Your task to perform on an android device: turn off translation in the chrome app Image 0: 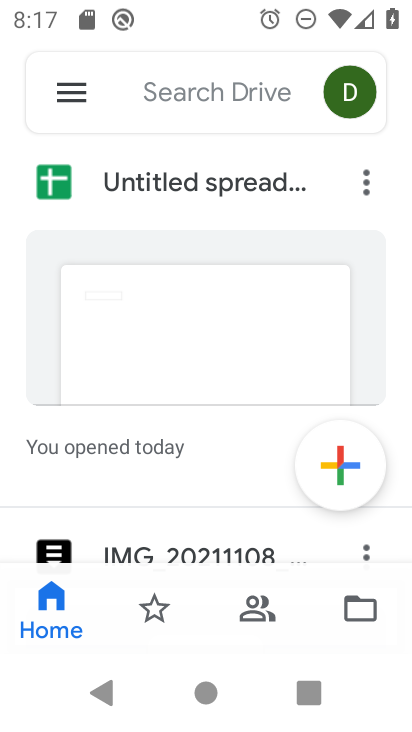
Step 0: press home button
Your task to perform on an android device: turn off translation in the chrome app Image 1: 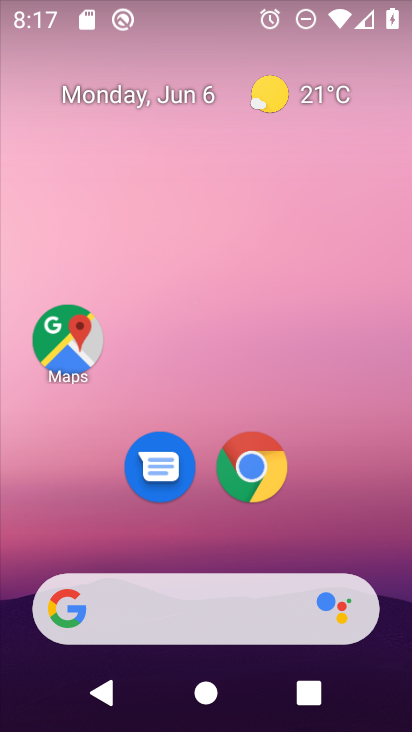
Step 1: drag from (375, 502) to (384, 147)
Your task to perform on an android device: turn off translation in the chrome app Image 2: 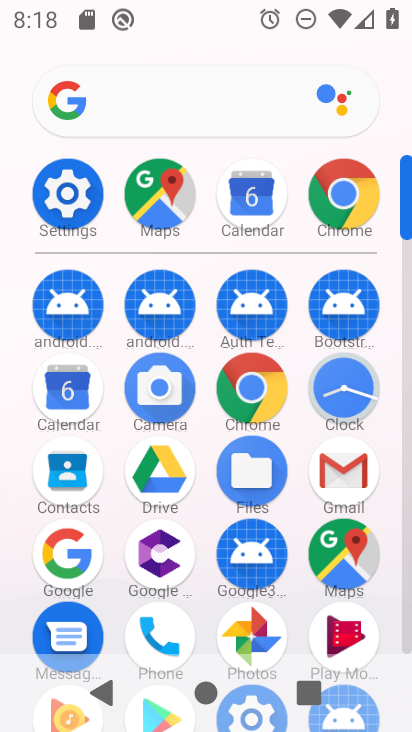
Step 2: click (268, 392)
Your task to perform on an android device: turn off translation in the chrome app Image 3: 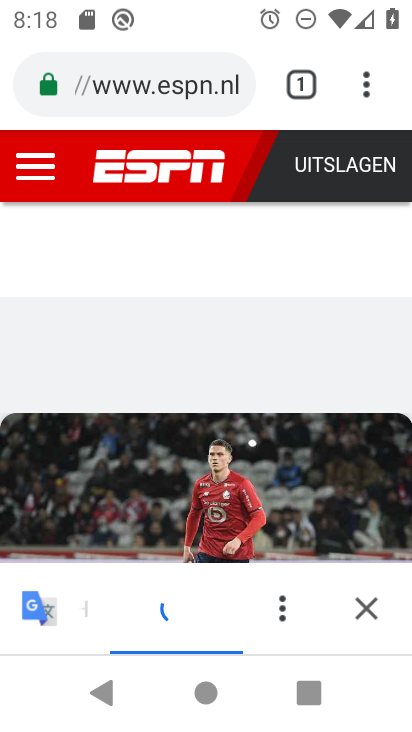
Step 3: click (366, 94)
Your task to perform on an android device: turn off translation in the chrome app Image 4: 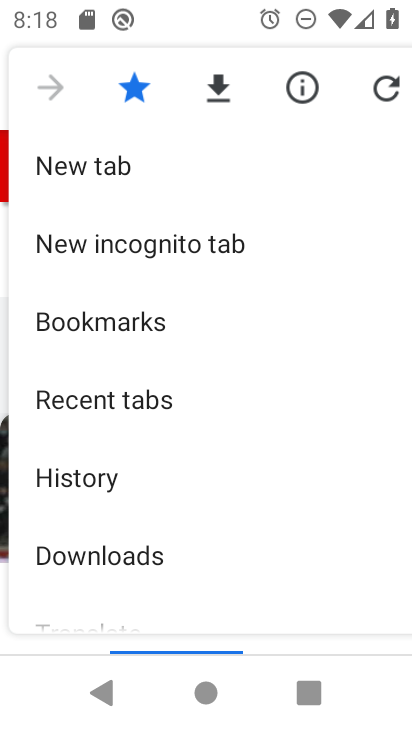
Step 4: drag from (309, 406) to (314, 317)
Your task to perform on an android device: turn off translation in the chrome app Image 5: 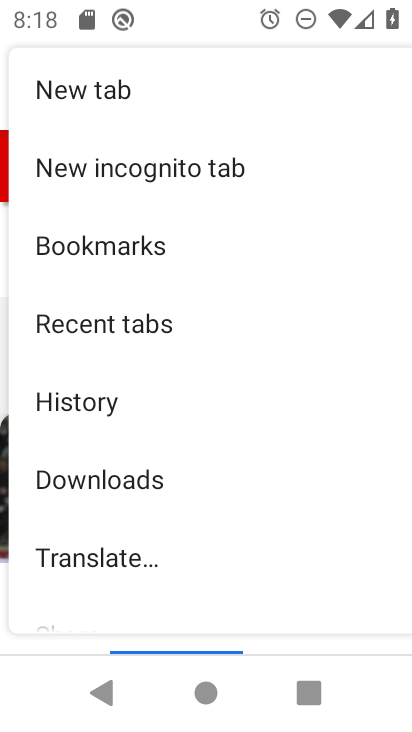
Step 5: drag from (350, 438) to (352, 335)
Your task to perform on an android device: turn off translation in the chrome app Image 6: 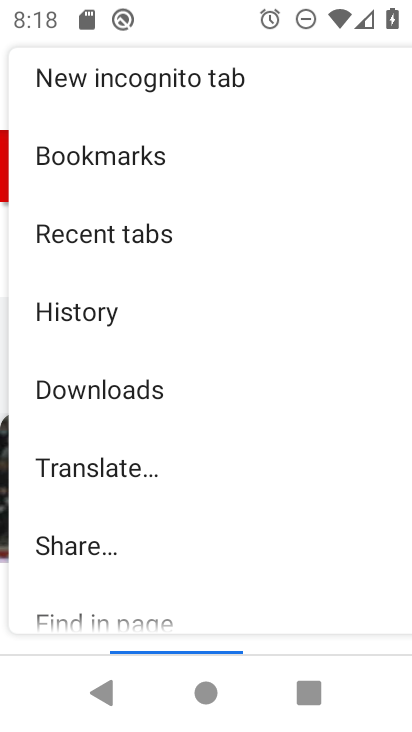
Step 6: drag from (322, 451) to (326, 265)
Your task to perform on an android device: turn off translation in the chrome app Image 7: 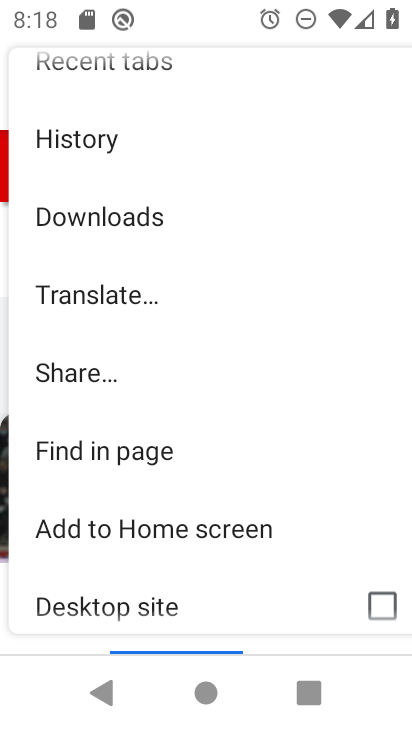
Step 7: drag from (350, 481) to (355, 327)
Your task to perform on an android device: turn off translation in the chrome app Image 8: 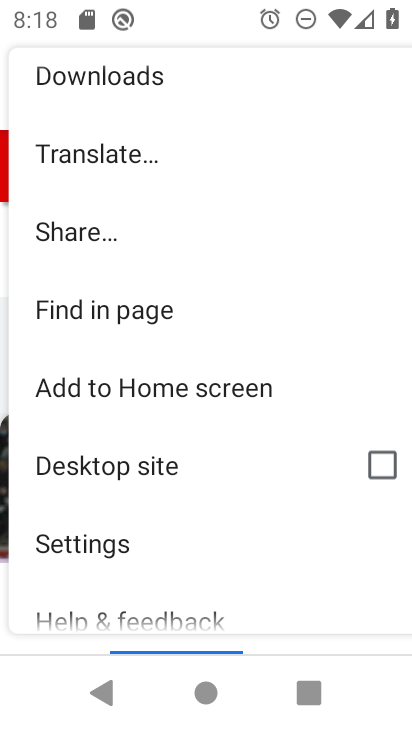
Step 8: click (132, 546)
Your task to perform on an android device: turn off translation in the chrome app Image 9: 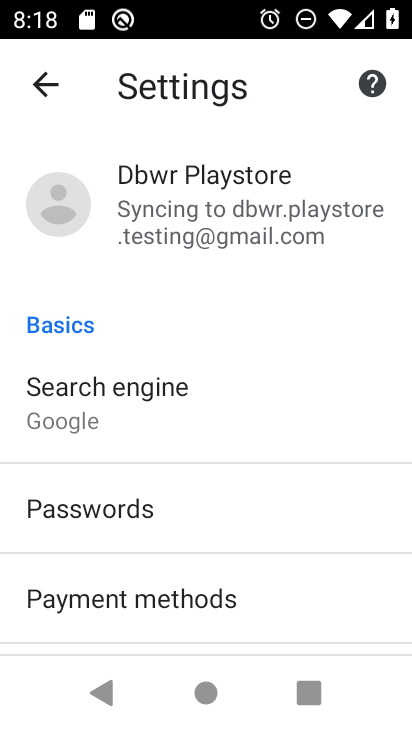
Step 9: drag from (331, 507) to (342, 421)
Your task to perform on an android device: turn off translation in the chrome app Image 10: 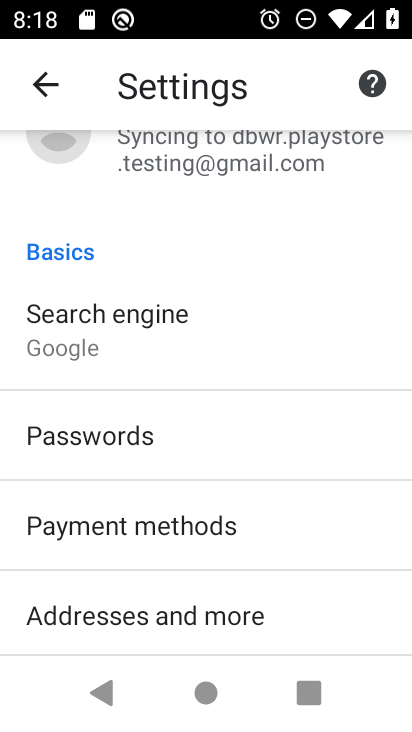
Step 10: drag from (352, 523) to (371, 419)
Your task to perform on an android device: turn off translation in the chrome app Image 11: 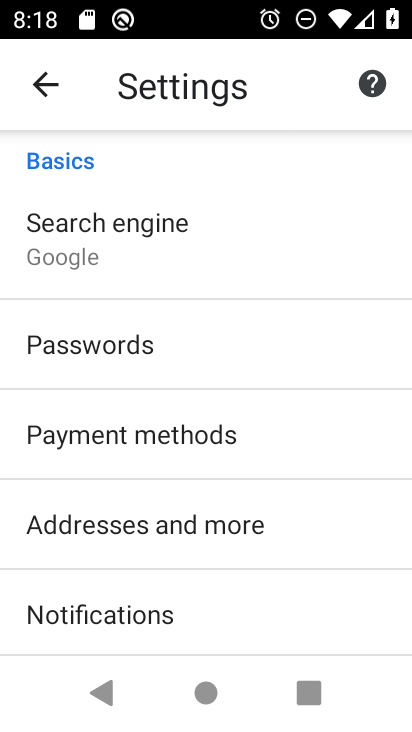
Step 11: drag from (356, 581) to (357, 406)
Your task to perform on an android device: turn off translation in the chrome app Image 12: 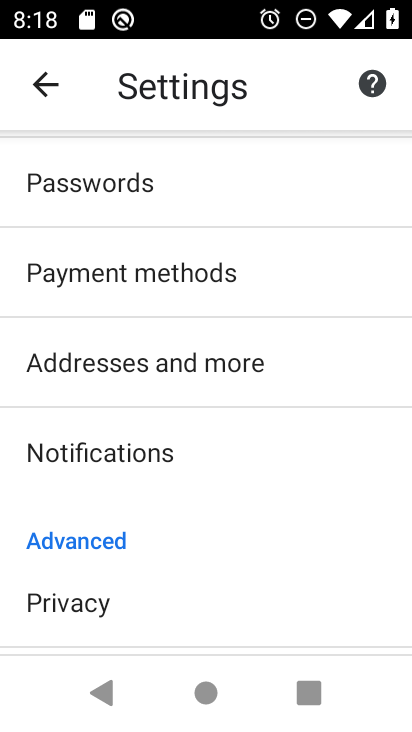
Step 12: drag from (355, 583) to (352, 462)
Your task to perform on an android device: turn off translation in the chrome app Image 13: 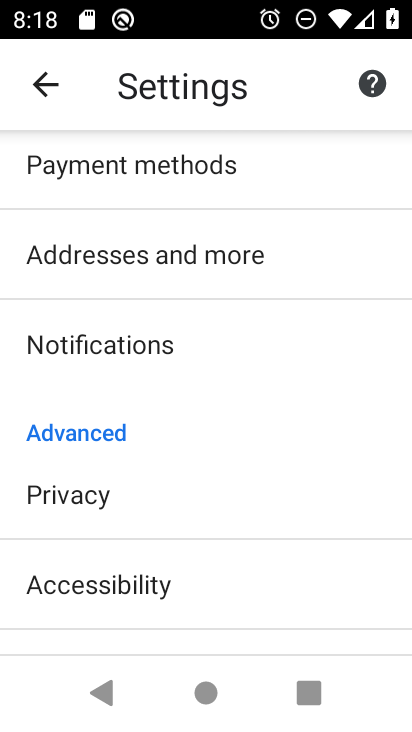
Step 13: drag from (340, 539) to (335, 463)
Your task to perform on an android device: turn off translation in the chrome app Image 14: 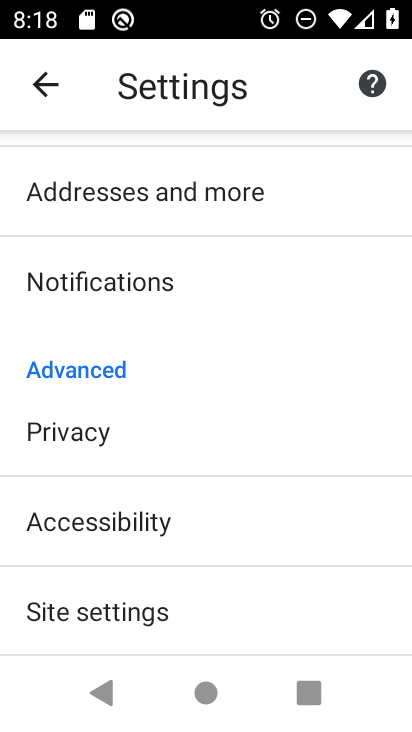
Step 14: drag from (331, 542) to (325, 379)
Your task to perform on an android device: turn off translation in the chrome app Image 15: 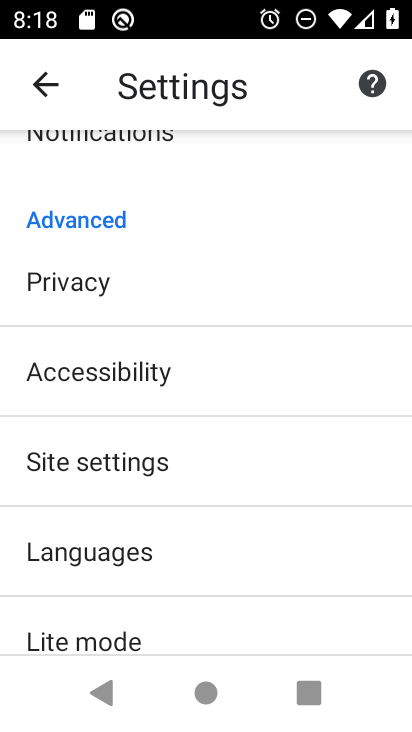
Step 15: drag from (305, 545) to (303, 417)
Your task to perform on an android device: turn off translation in the chrome app Image 16: 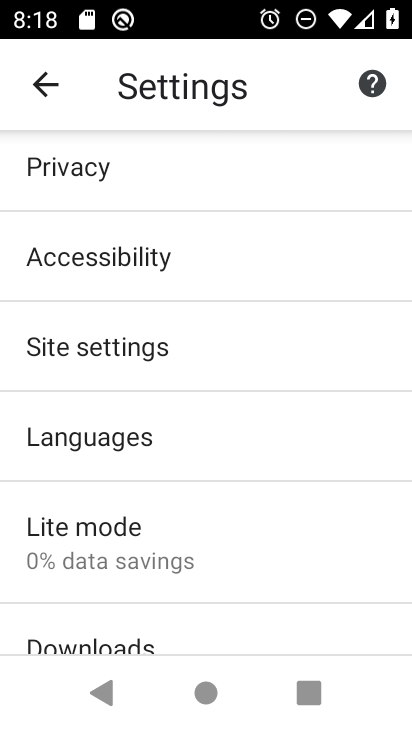
Step 16: click (268, 446)
Your task to perform on an android device: turn off translation in the chrome app Image 17: 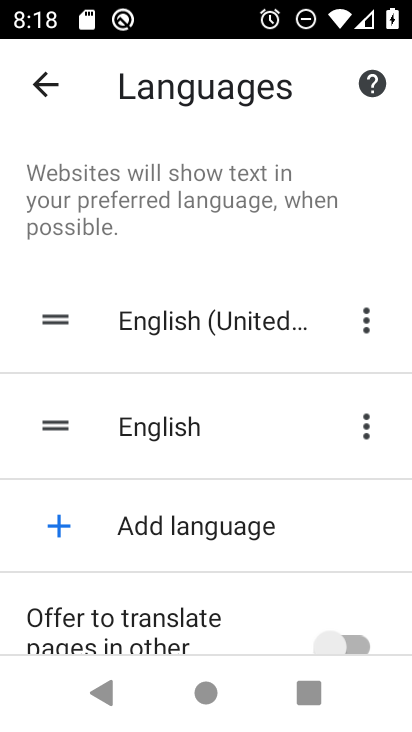
Step 17: task complete